Your task to perform on an android device: Open my contact list Image 0: 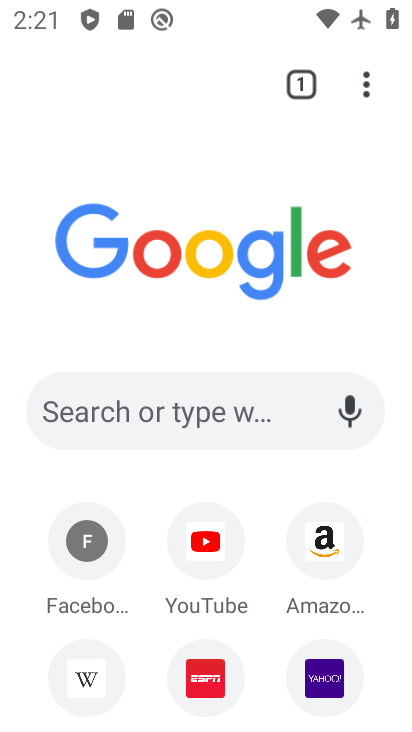
Step 0: press back button
Your task to perform on an android device: Open my contact list Image 1: 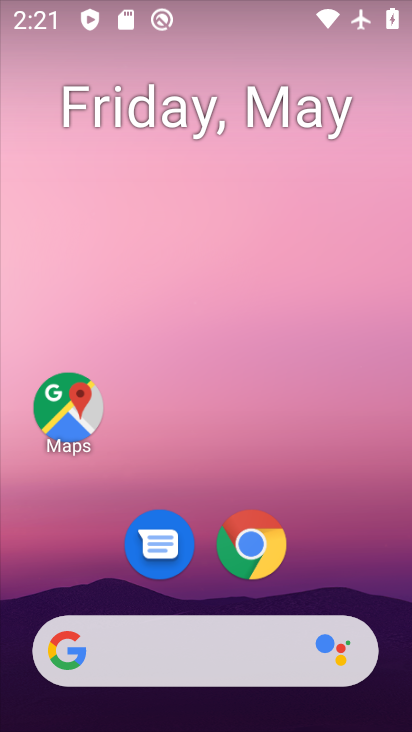
Step 1: drag from (177, 598) to (258, 83)
Your task to perform on an android device: Open my contact list Image 2: 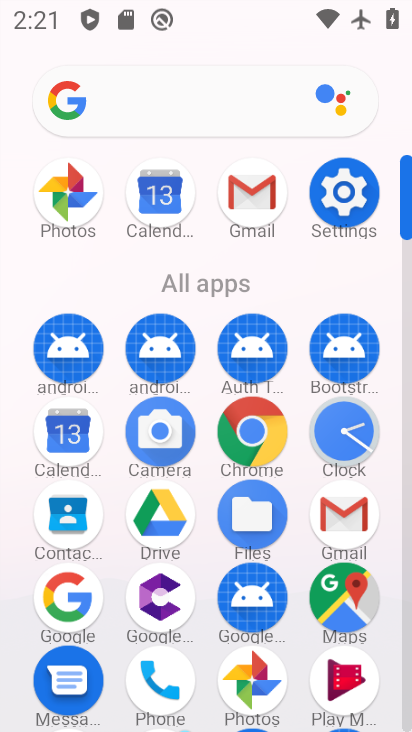
Step 2: click (66, 530)
Your task to perform on an android device: Open my contact list Image 3: 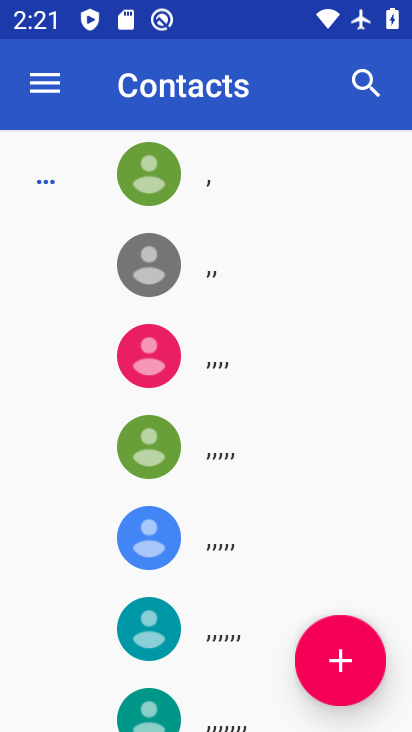
Step 3: task complete